Your task to perform on an android device: uninstall "AliExpress" Image 0: 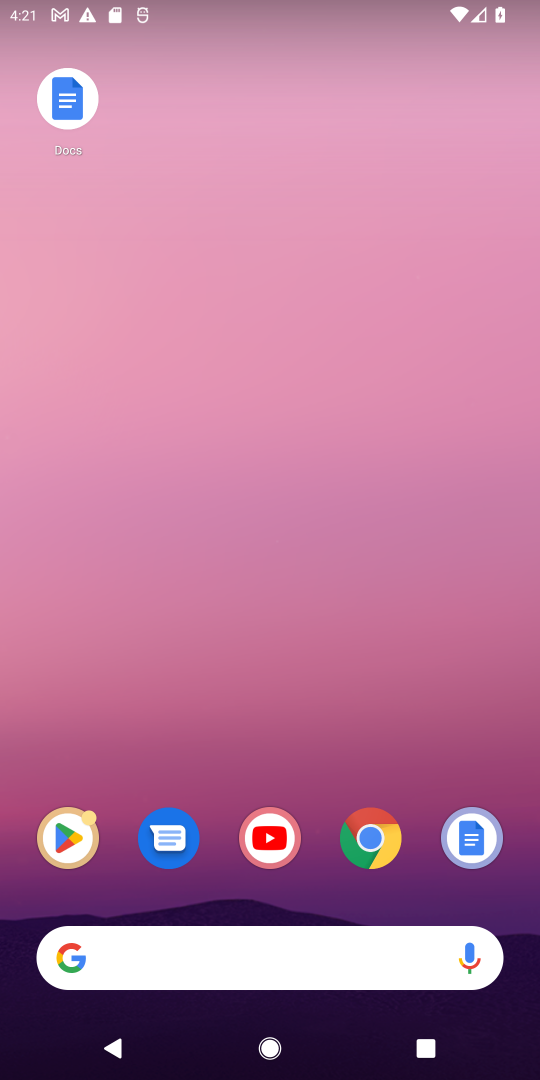
Step 0: drag from (392, 760) to (352, 385)
Your task to perform on an android device: uninstall "AliExpress" Image 1: 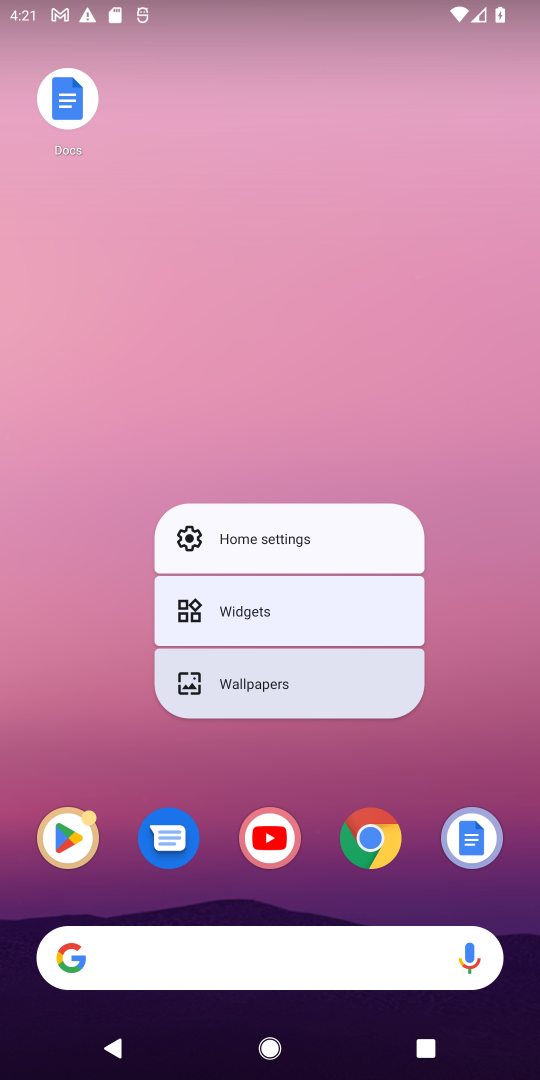
Step 1: click (54, 842)
Your task to perform on an android device: uninstall "AliExpress" Image 2: 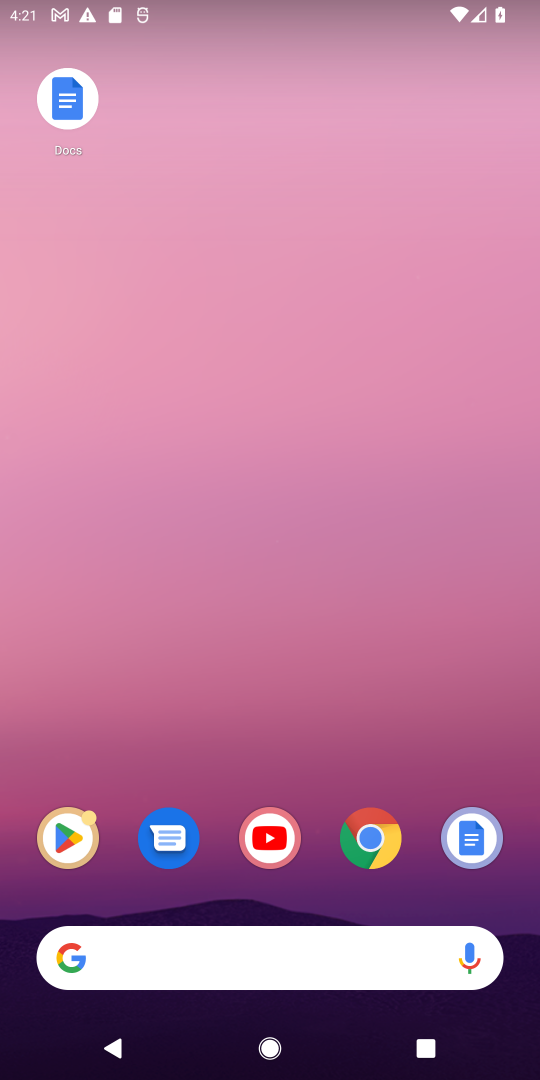
Step 2: click (66, 829)
Your task to perform on an android device: uninstall "AliExpress" Image 3: 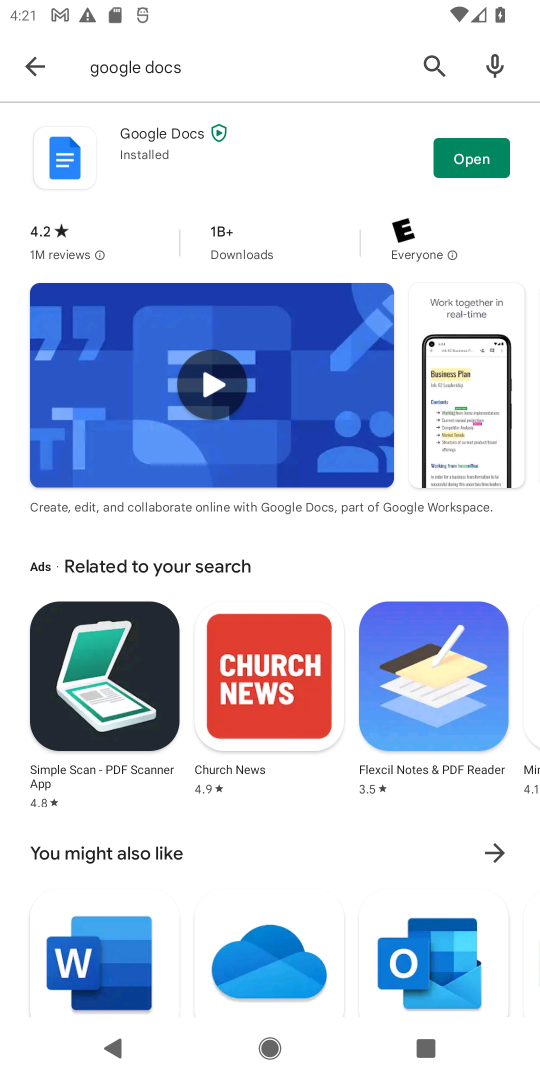
Step 3: click (427, 52)
Your task to perform on an android device: uninstall "AliExpress" Image 4: 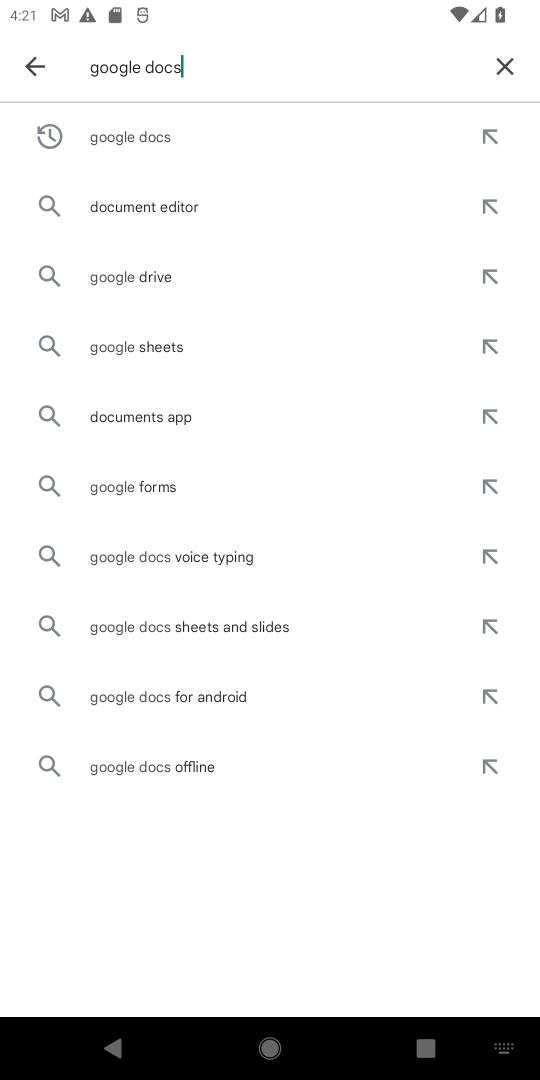
Step 4: click (511, 61)
Your task to perform on an android device: uninstall "AliExpress" Image 5: 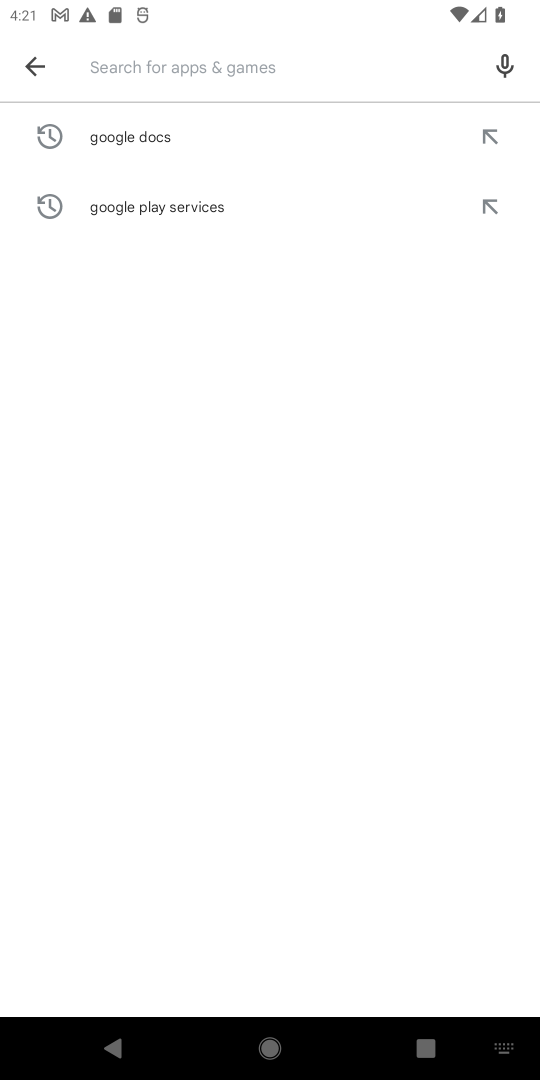
Step 5: type "AliExpress"
Your task to perform on an android device: uninstall "AliExpress" Image 6: 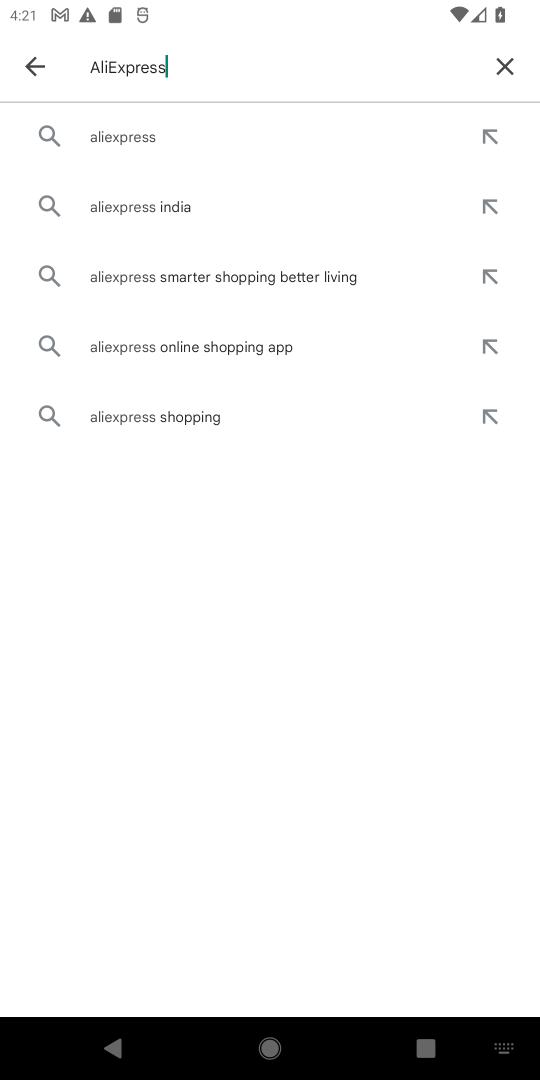
Step 6: click (243, 132)
Your task to perform on an android device: uninstall "AliExpress" Image 7: 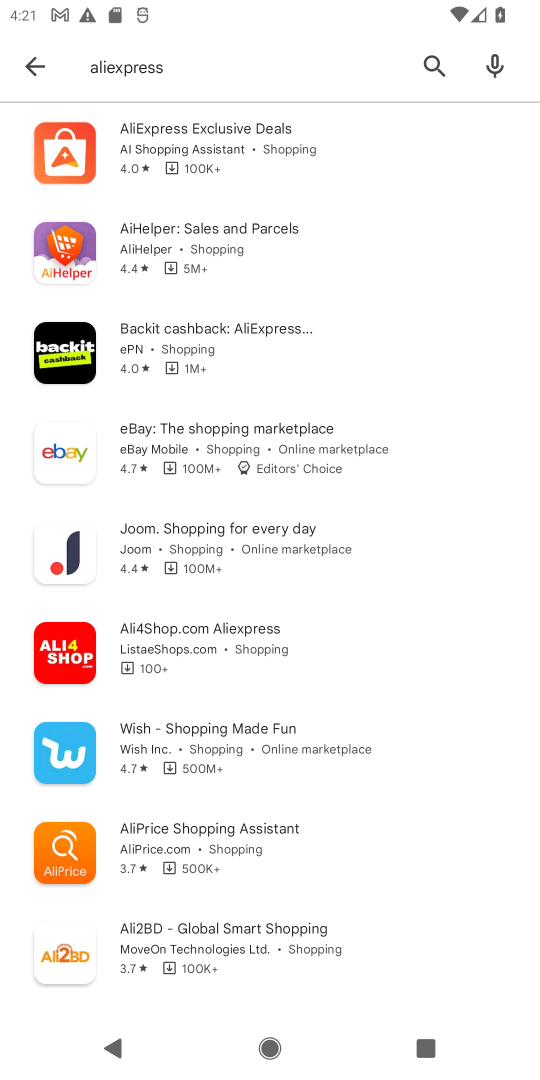
Step 7: click (302, 145)
Your task to perform on an android device: uninstall "AliExpress" Image 8: 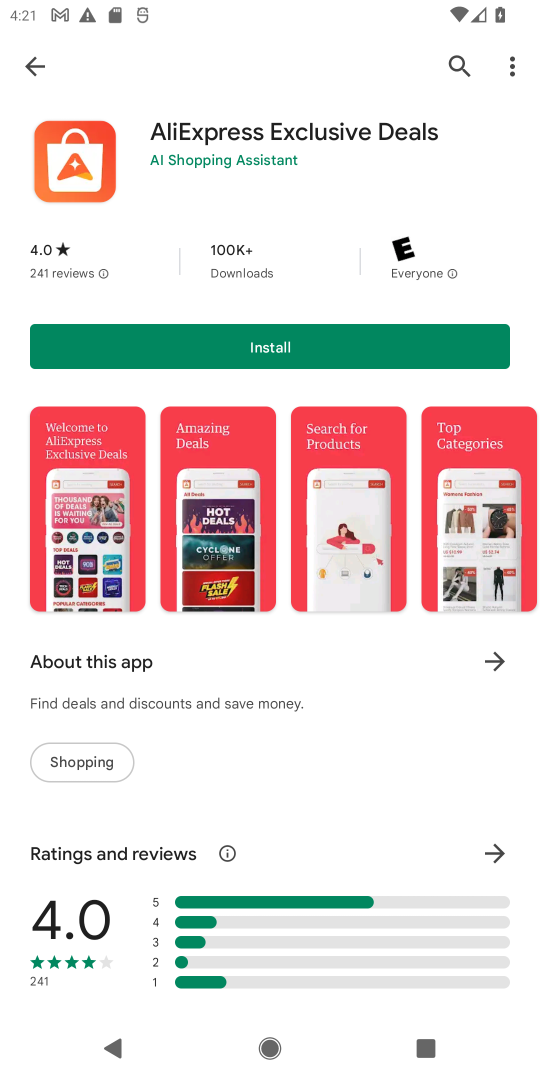
Step 8: task complete